Your task to perform on an android device: Open CNN.com Image 0: 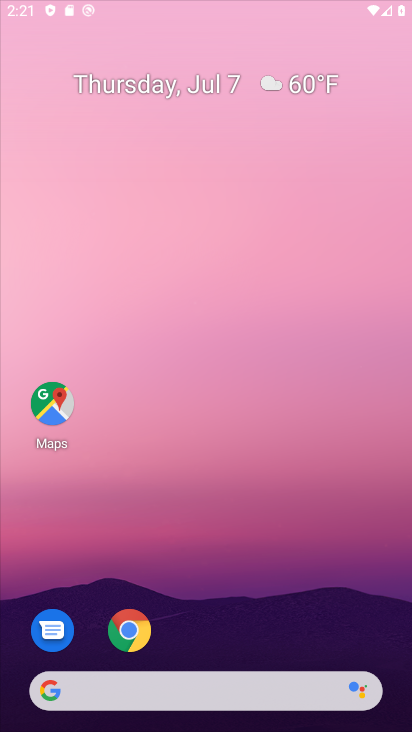
Step 0: drag from (250, 715) to (97, 57)
Your task to perform on an android device: Open CNN.com Image 1: 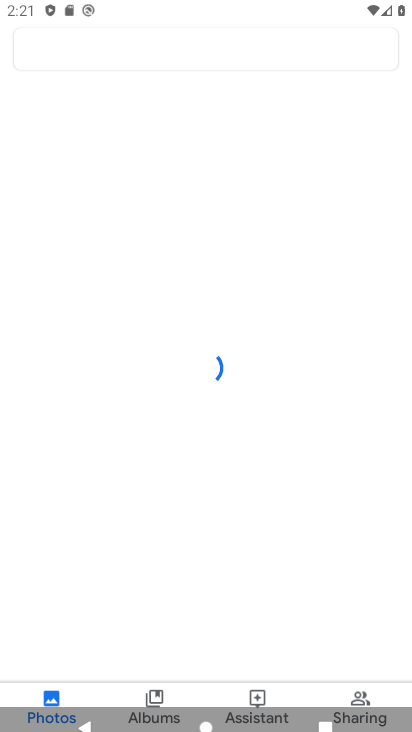
Step 1: drag from (232, 372) to (167, 65)
Your task to perform on an android device: Open CNN.com Image 2: 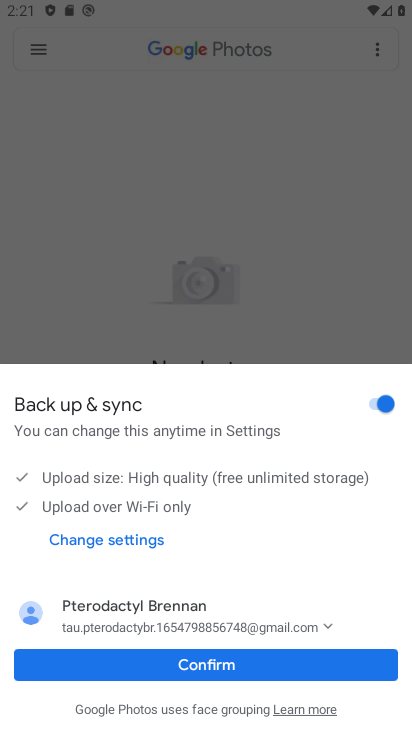
Step 2: click (245, 241)
Your task to perform on an android device: Open CNN.com Image 3: 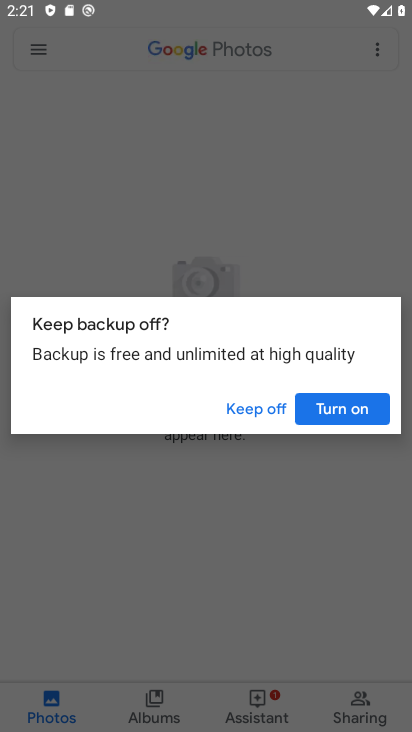
Step 3: click (259, 245)
Your task to perform on an android device: Open CNN.com Image 4: 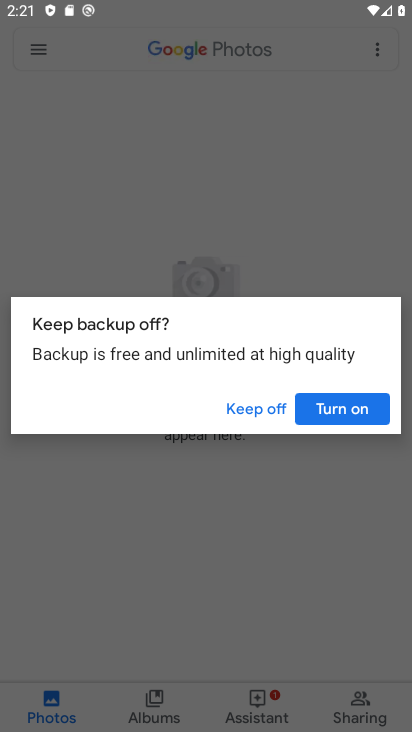
Step 4: drag from (265, 264) to (270, 199)
Your task to perform on an android device: Open CNN.com Image 5: 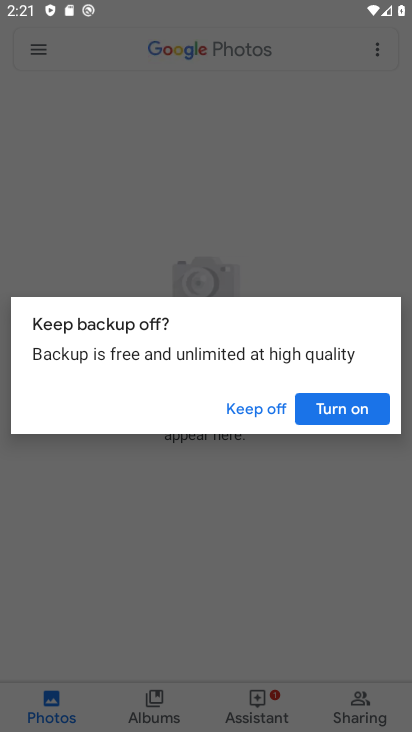
Step 5: click (270, 199)
Your task to perform on an android device: Open CNN.com Image 6: 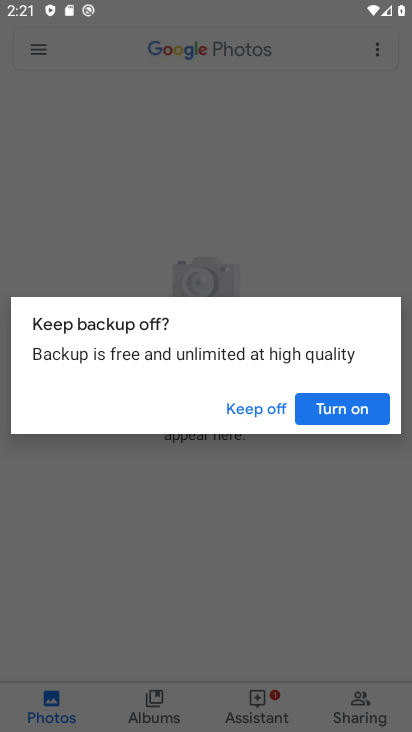
Step 6: click (341, 414)
Your task to perform on an android device: Open CNN.com Image 7: 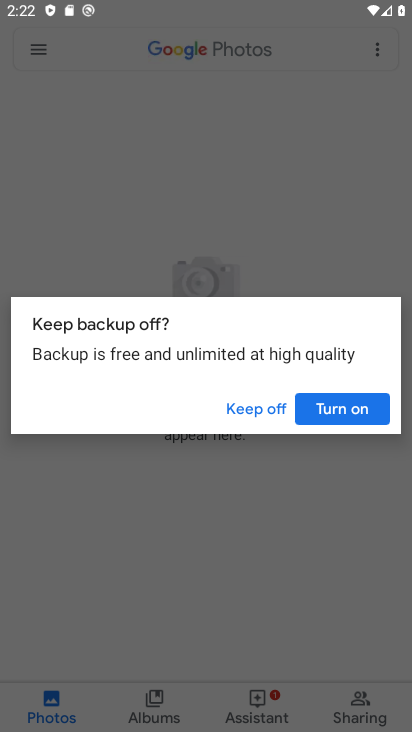
Step 7: click (340, 418)
Your task to perform on an android device: Open CNN.com Image 8: 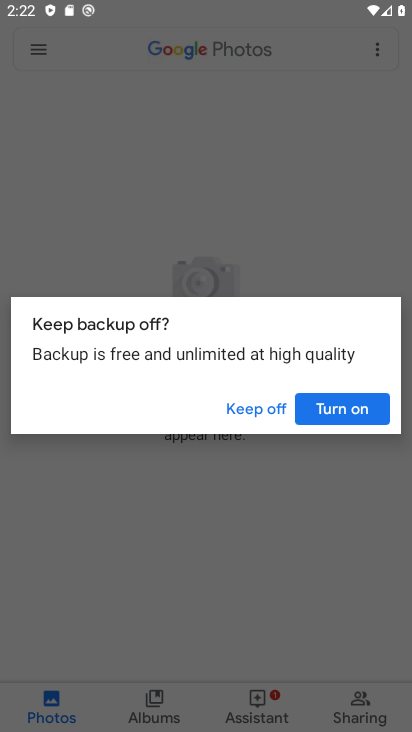
Step 8: drag from (340, 418) to (223, 401)
Your task to perform on an android device: Open CNN.com Image 9: 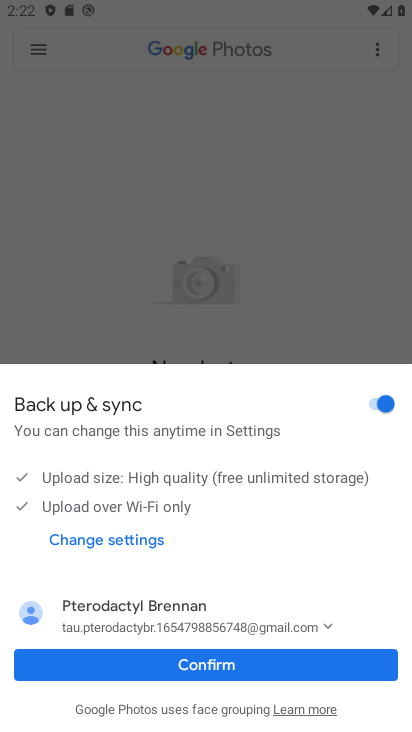
Step 9: click (239, 417)
Your task to perform on an android device: Open CNN.com Image 10: 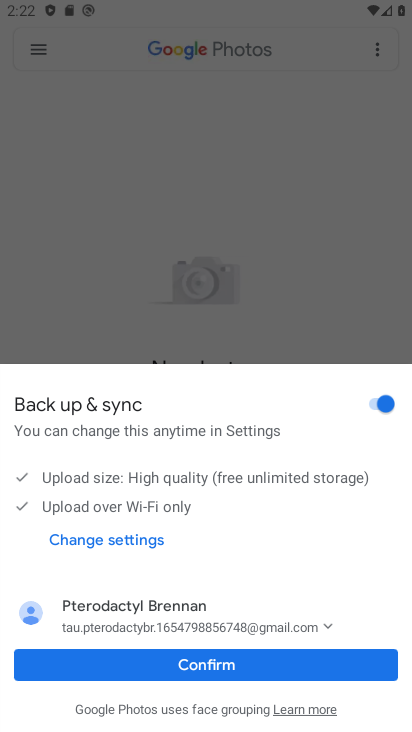
Step 10: click (286, 255)
Your task to perform on an android device: Open CNN.com Image 11: 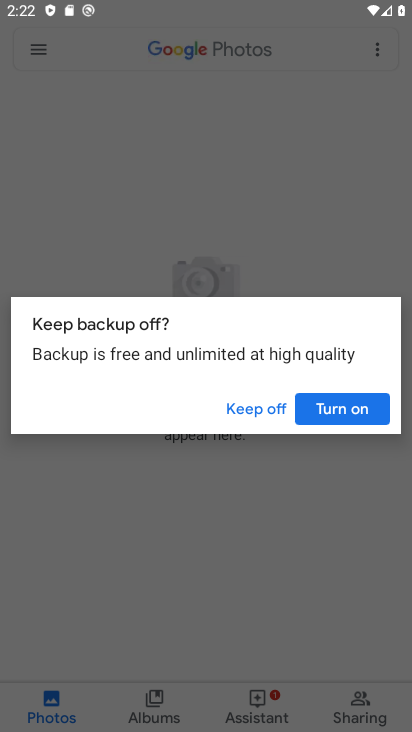
Step 11: task complete